Your task to perform on an android device: What's the weather going to be tomorrow? Image 0: 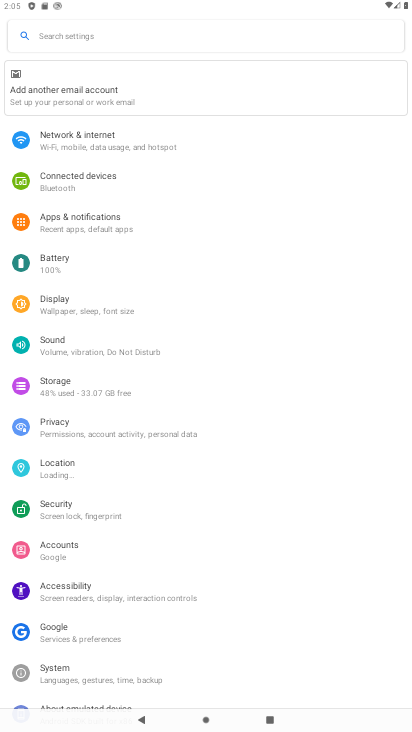
Step 0: press home button
Your task to perform on an android device: What's the weather going to be tomorrow? Image 1: 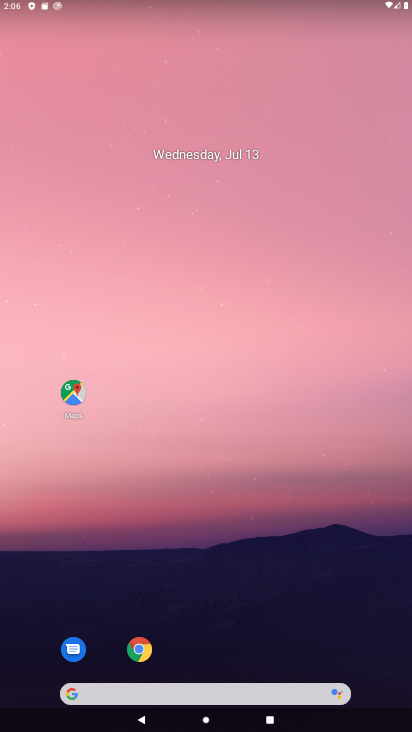
Step 1: click (188, 685)
Your task to perform on an android device: What's the weather going to be tomorrow? Image 2: 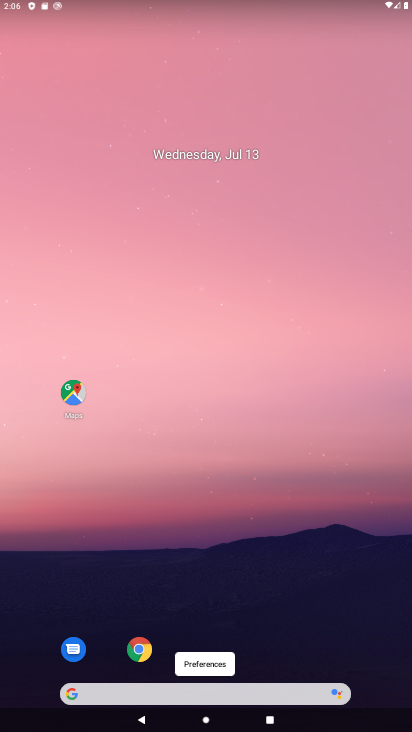
Step 2: click (194, 685)
Your task to perform on an android device: What's the weather going to be tomorrow? Image 3: 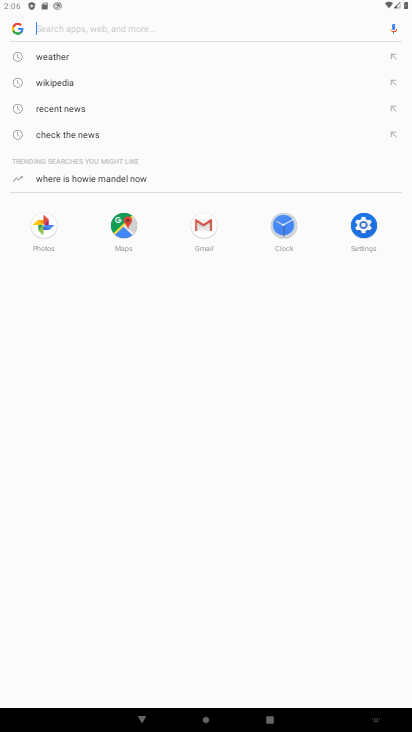
Step 3: type "weather igoing to be tomorrow?"
Your task to perform on an android device: What's the weather going to be tomorrow? Image 4: 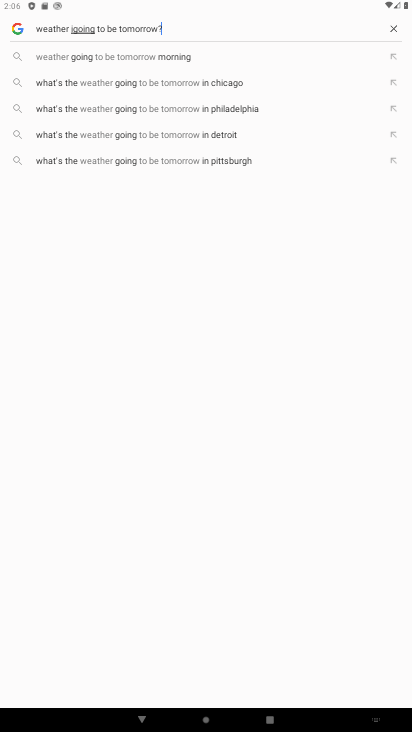
Step 4: press enter
Your task to perform on an android device: What's the weather going to be tomorrow? Image 5: 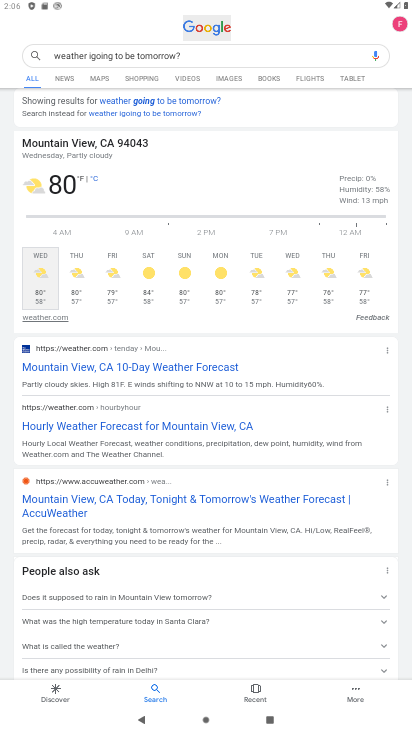
Step 5: task complete